Your task to perform on an android device: set the stopwatch Image 0: 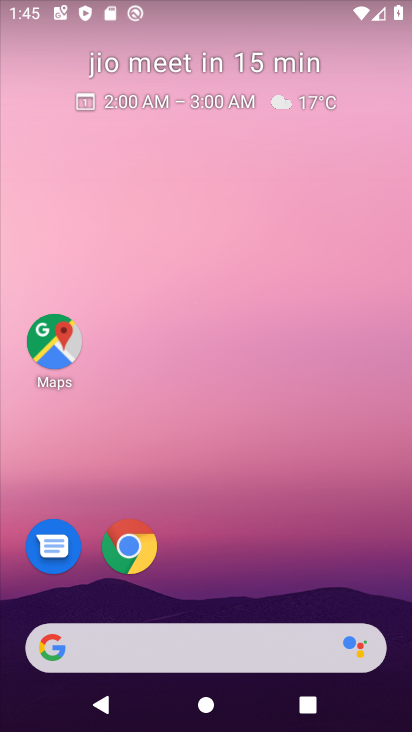
Step 0: drag from (247, 594) to (294, 71)
Your task to perform on an android device: set the stopwatch Image 1: 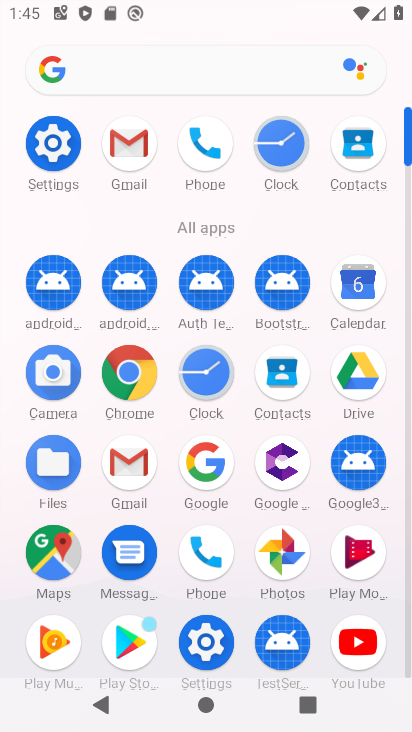
Step 1: click (185, 358)
Your task to perform on an android device: set the stopwatch Image 2: 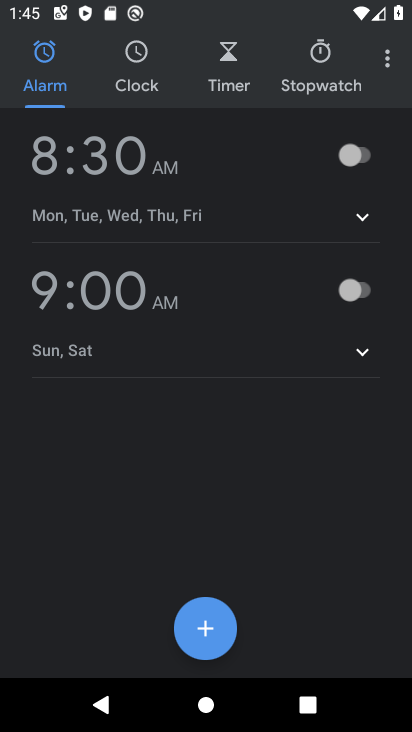
Step 2: click (318, 80)
Your task to perform on an android device: set the stopwatch Image 3: 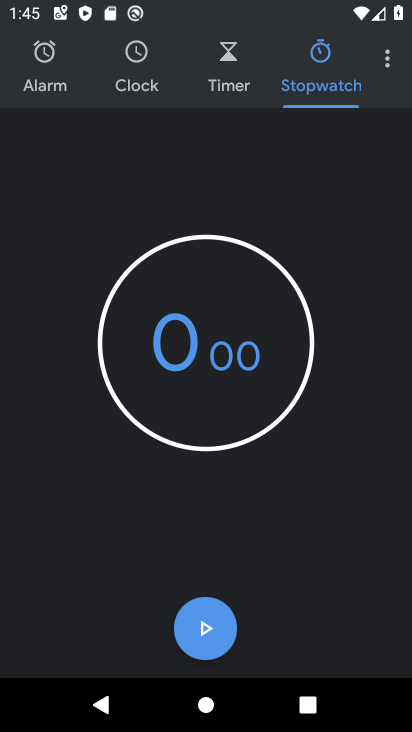
Step 3: task complete